Your task to perform on an android device: Search for a home improvement project you can do. Image 0: 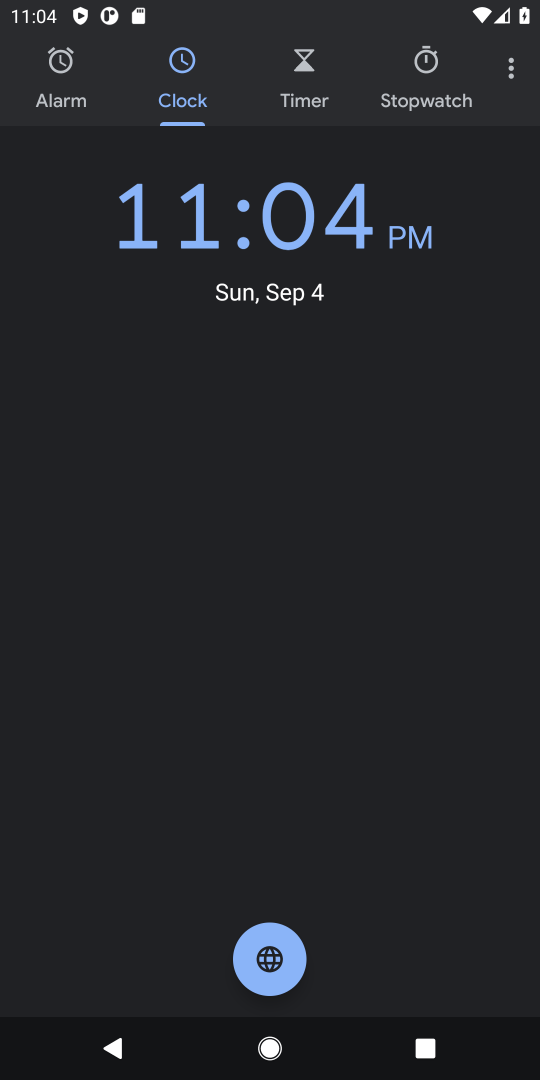
Step 0: press home button
Your task to perform on an android device: Search for a home improvement project you can do. Image 1: 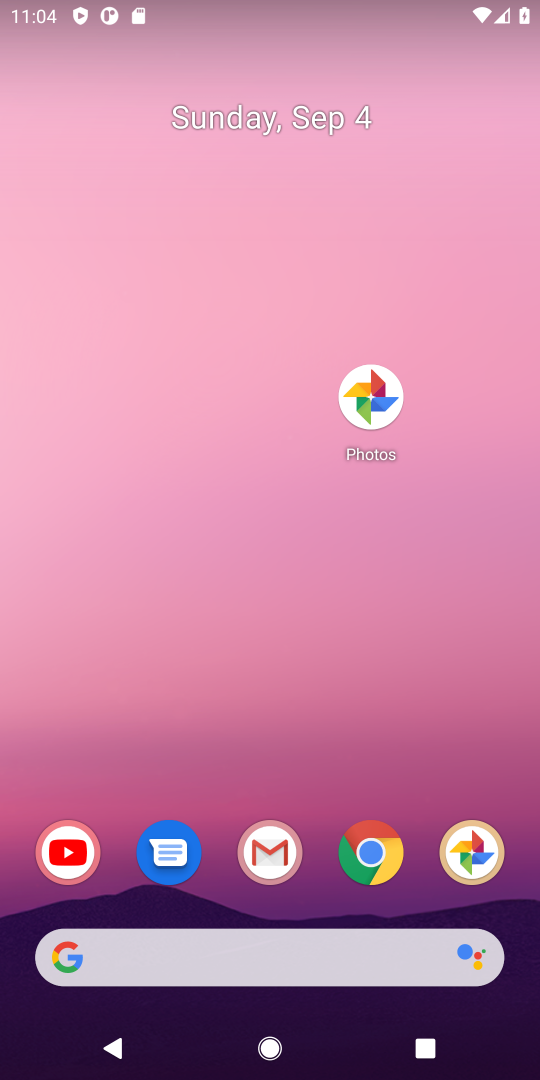
Step 1: drag from (438, 901) to (109, 40)
Your task to perform on an android device: Search for a home improvement project you can do. Image 2: 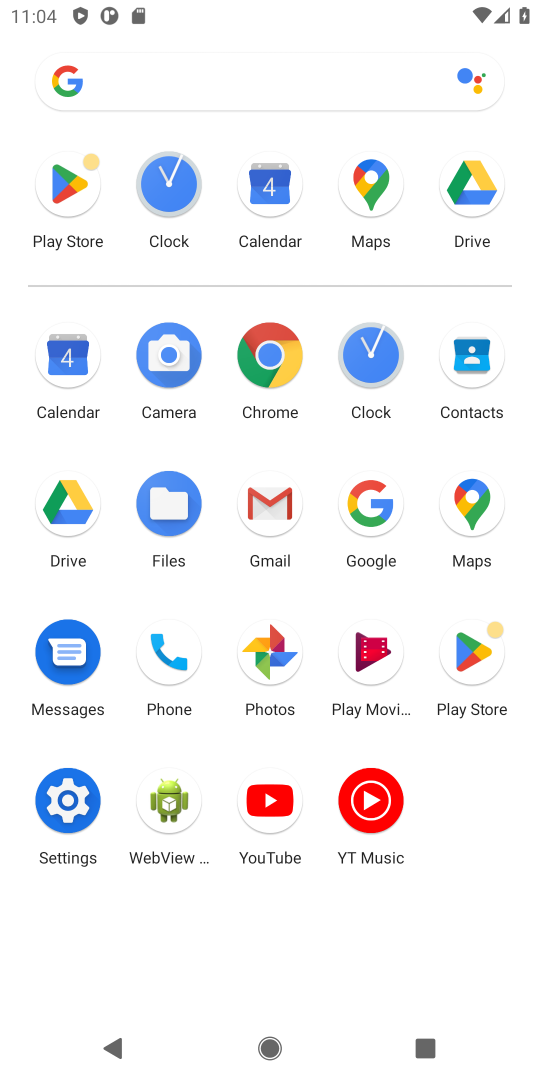
Step 2: click (364, 513)
Your task to perform on an android device: Search for a home improvement project you can do. Image 3: 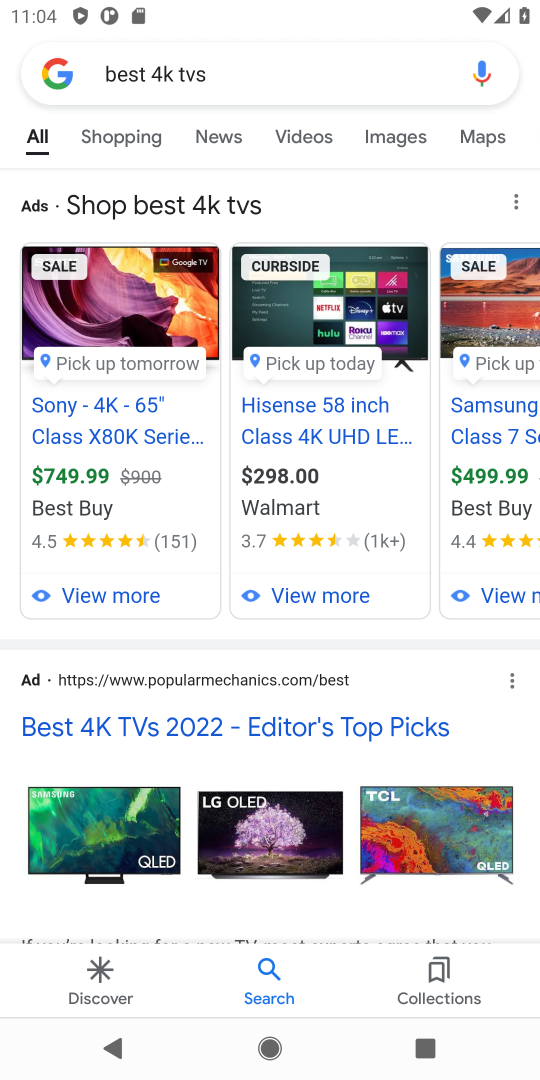
Step 3: press back button
Your task to perform on an android device: Search for a home improvement project you can do. Image 4: 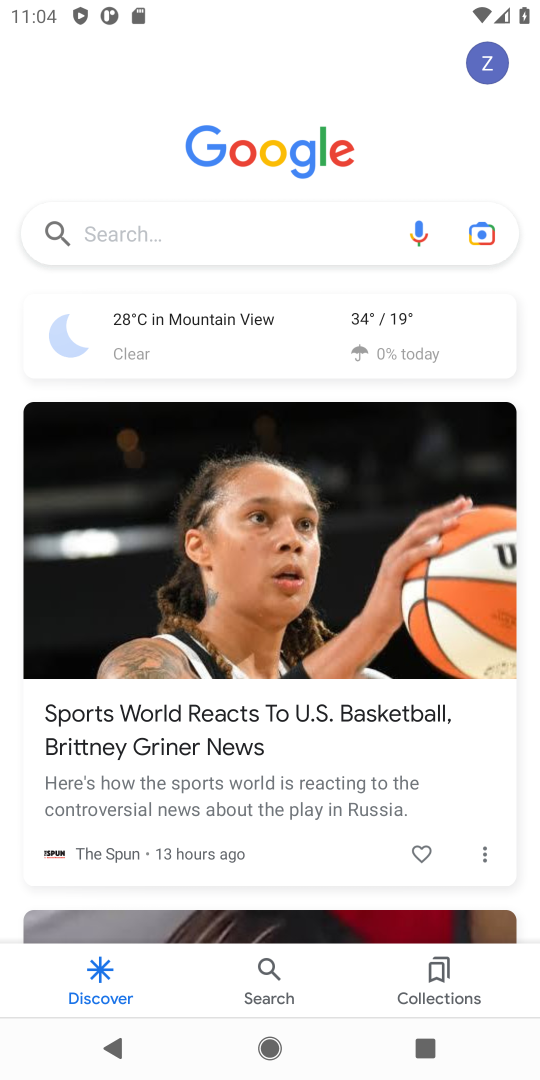
Step 4: click (146, 225)
Your task to perform on an android device: Search for a home improvement project you can do. Image 5: 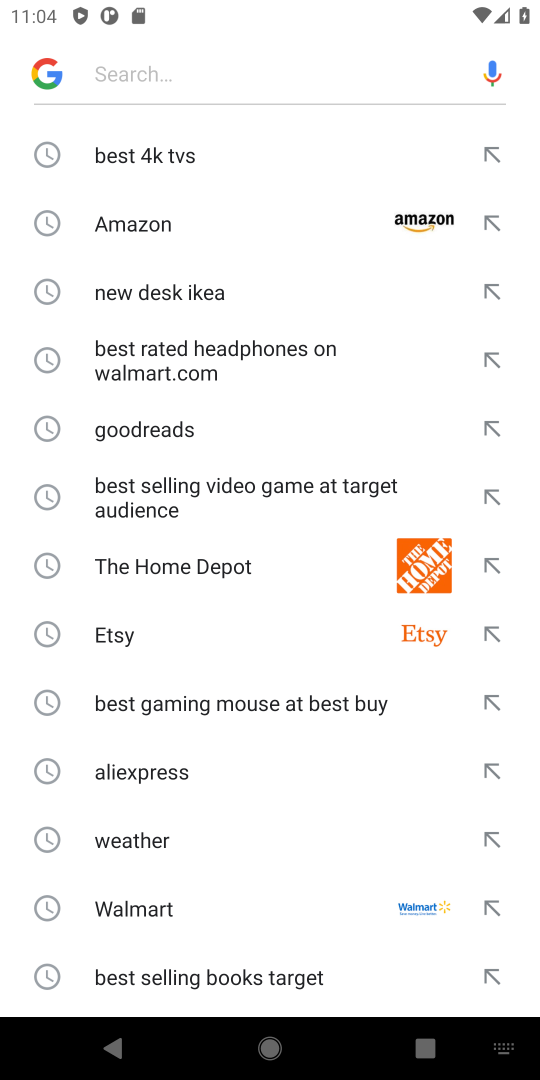
Step 5: type "home improvement project you can do"
Your task to perform on an android device: Search for a home improvement project you can do. Image 6: 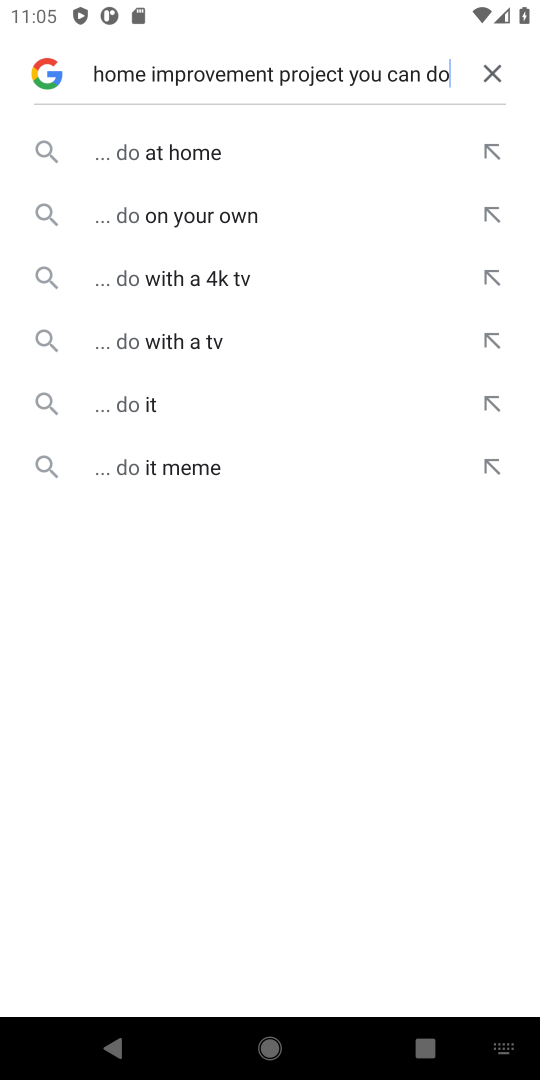
Step 6: click (173, 168)
Your task to perform on an android device: Search for a home improvement project you can do. Image 7: 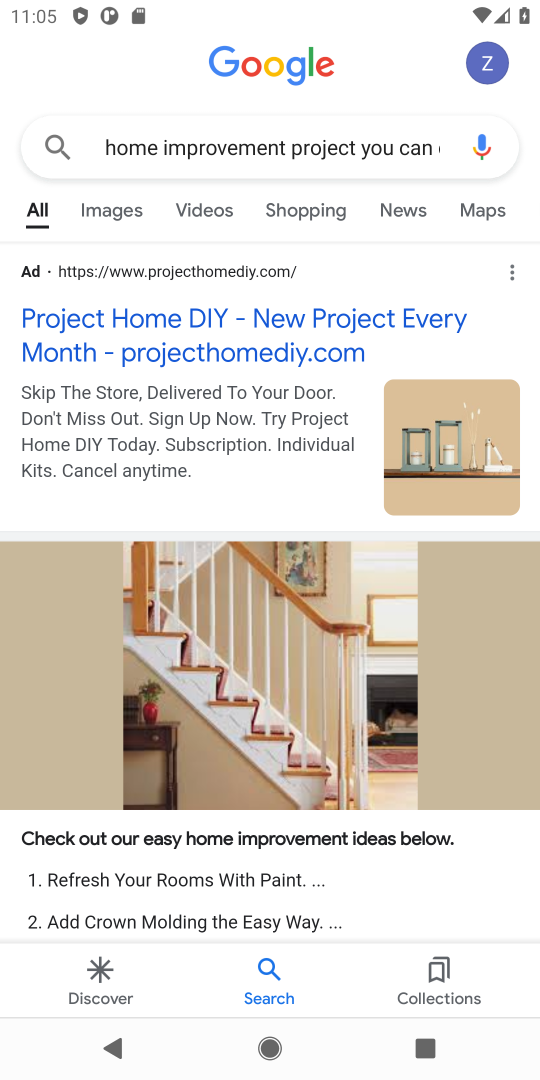
Step 7: task complete